Your task to perform on an android device: Search for Mexican restaurants on Maps Image 0: 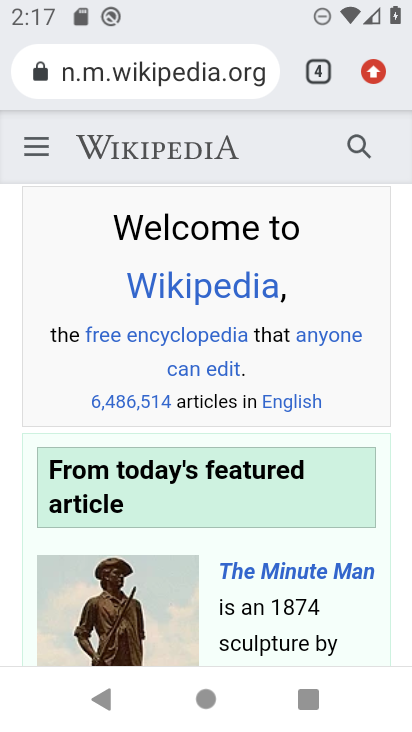
Step 0: press home button
Your task to perform on an android device: Search for Mexican restaurants on Maps Image 1: 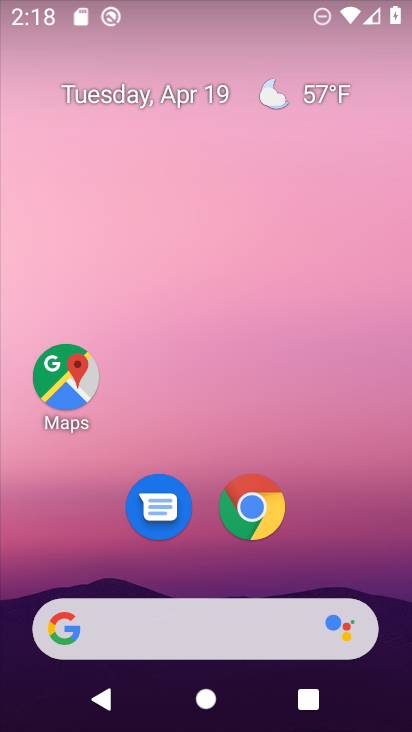
Step 1: click (60, 379)
Your task to perform on an android device: Search for Mexican restaurants on Maps Image 2: 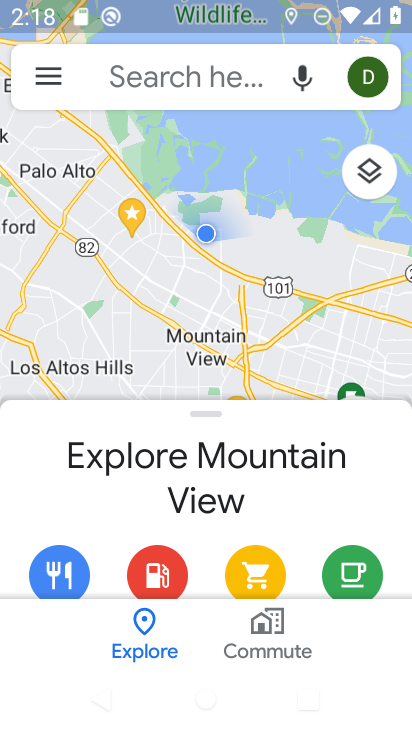
Step 2: click (220, 87)
Your task to perform on an android device: Search for Mexican restaurants on Maps Image 3: 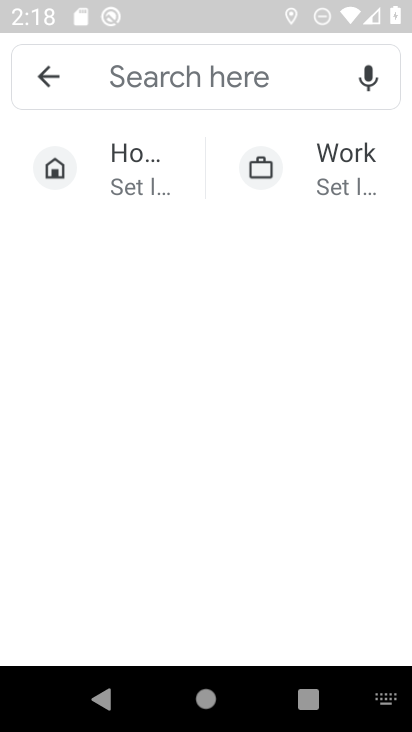
Step 3: type "mexican"
Your task to perform on an android device: Search for Mexican restaurants on Maps Image 4: 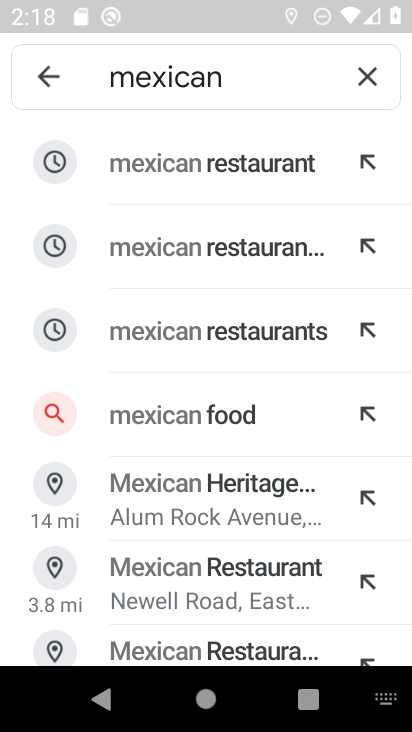
Step 4: click (194, 148)
Your task to perform on an android device: Search for Mexican restaurants on Maps Image 5: 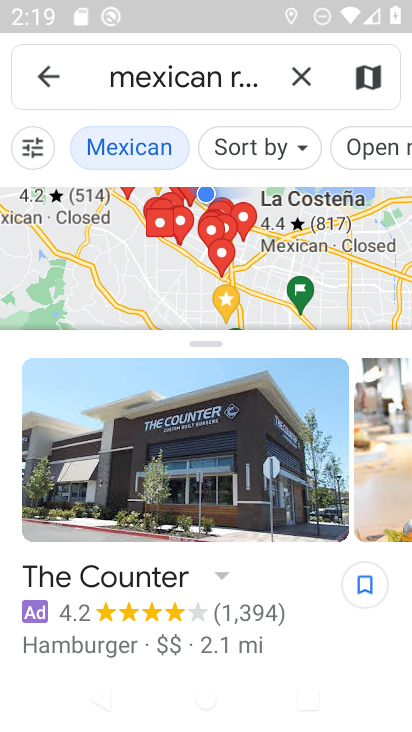
Step 5: task complete